Your task to perform on an android device: choose inbox layout in the gmail app Image 0: 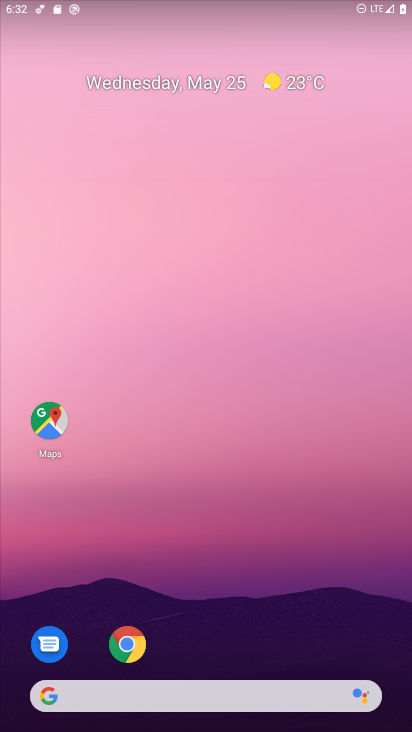
Step 0: drag from (312, 666) to (283, 143)
Your task to perform on an android device: choose inbox layout in the gmail app Image 1: 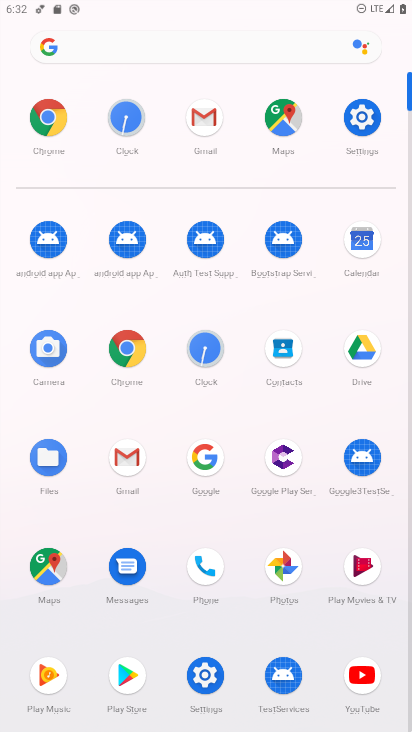
Step 1: click (121, 476)
Your task to perform on an android device: choose inbox layout in the gmail app Image 2: 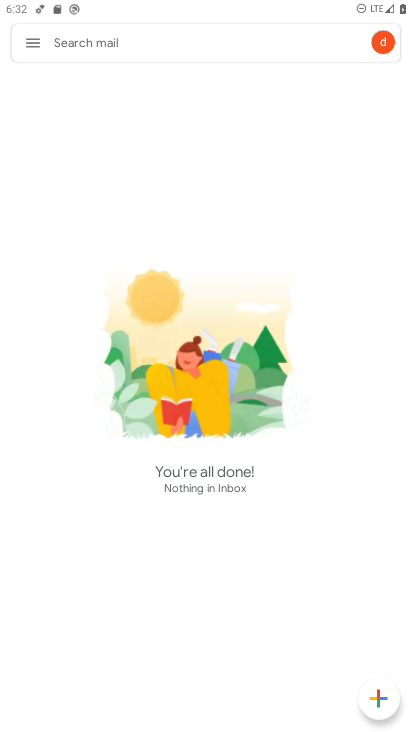
Step 2: task complete